Your task to perform on an android device: Find coffee shops on Maps Image 0: 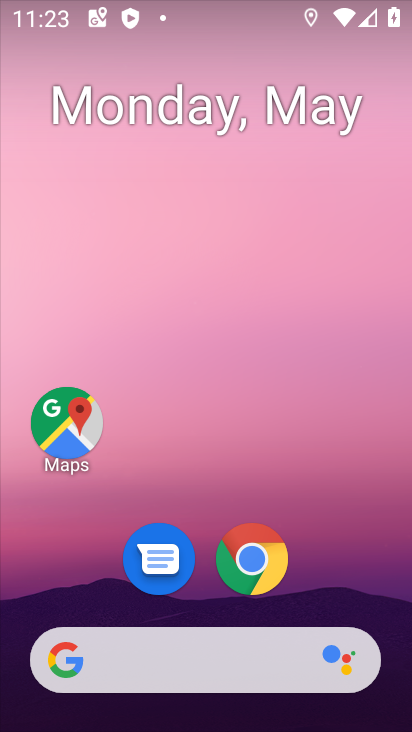
Step 0: drag from (332, 561) to (353, 125)
Your task to perform on an android device: Find coffee shops on Maps Image 1: 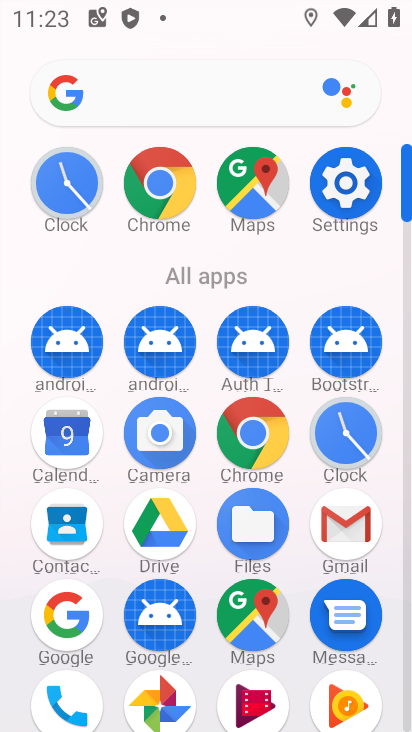
Step 1: click (251, 621)
Your task to perform on an android device: Find coffee shops on Maps Image 2: 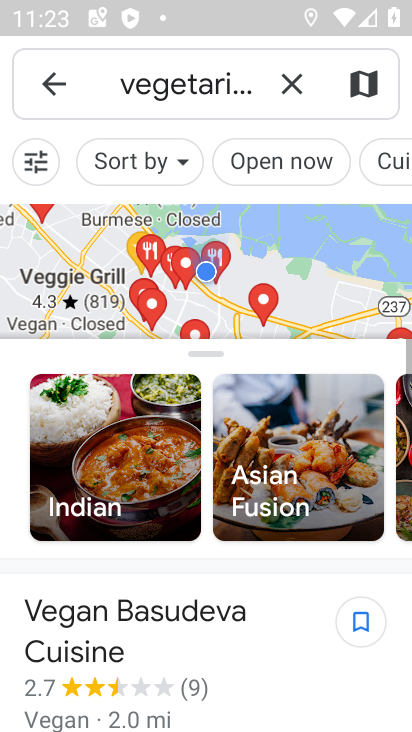
Step 2: click (294, 95)
Your task to perform on an android device: Find coffee shops on Maps Image 3: 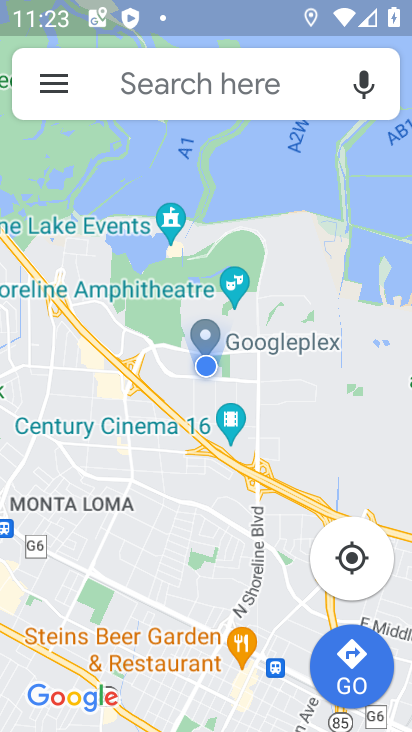
Step 3: click (265, 97)
Your task to perform on an android device: Find coffee shops on Maps Image 4: 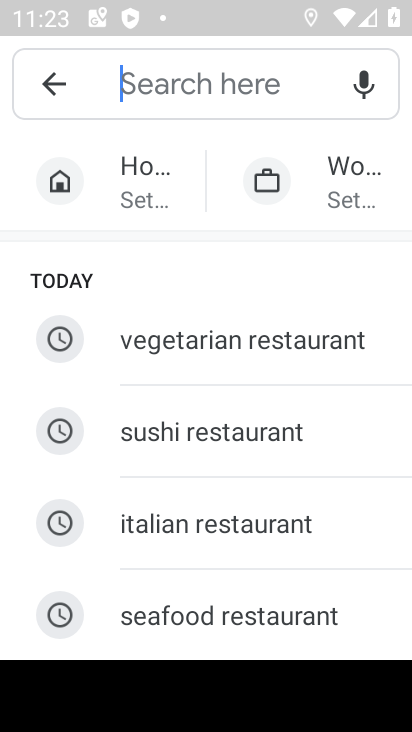
Step 4: type " coffee shops "
Your task to perform on an android device: Find coffee shops on Maps Image 5: 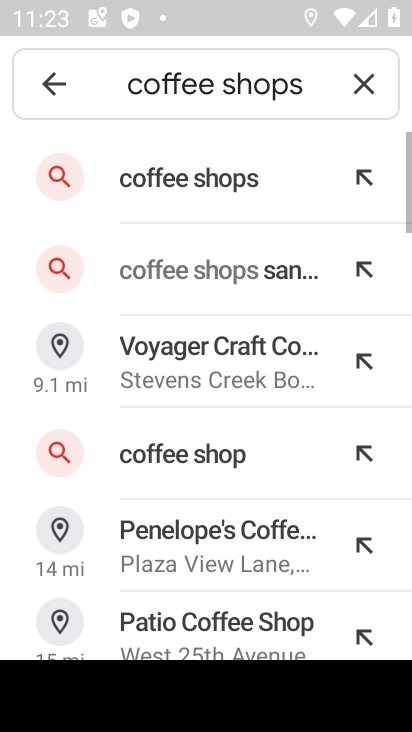
Step 5: click (232, 179)
Your task to perform on an android device: Find coffee shops on Maps Image 6: 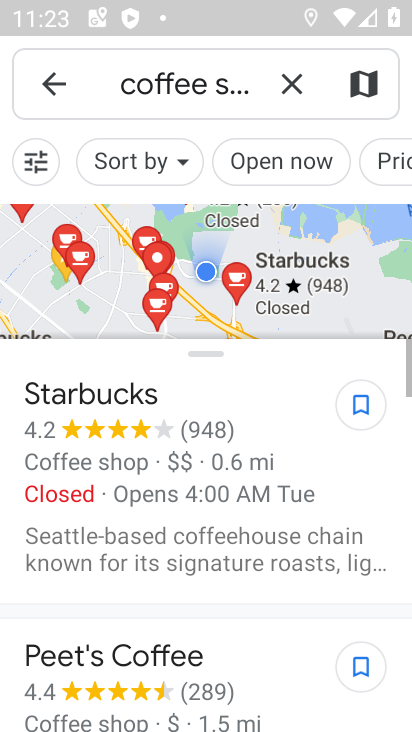
Step 6: task complete